Your task to perform on an android device: Clear the cart on walmart.com. Search for "lenovo thinkpad" on walmart.com, select the first entry, and add it to the cart. Image 0: 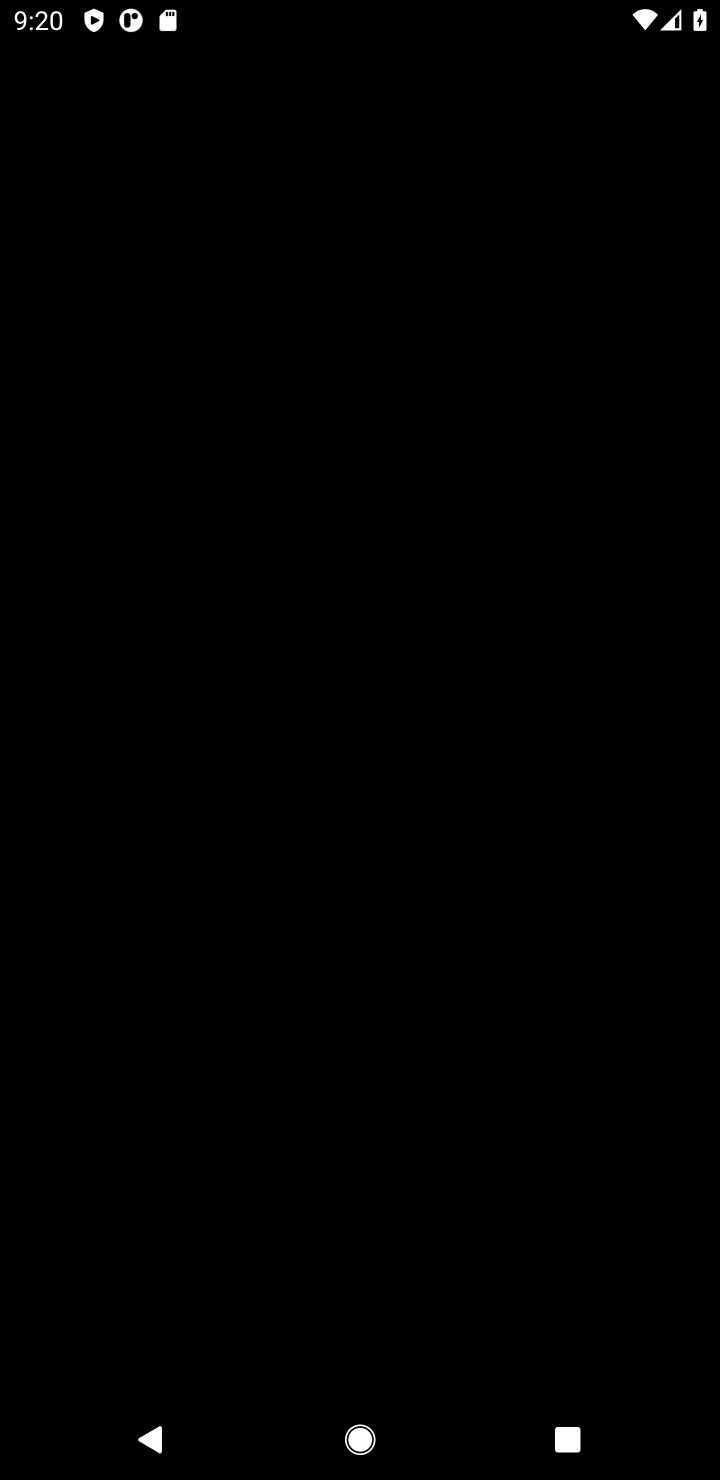
Step 0: press home button
Your task to perform on an android device: Clear the cart on walmart.com. Search for "lenovo thinkpad" on walmart.com, select the first entry, and add it to the cart. Image 1: 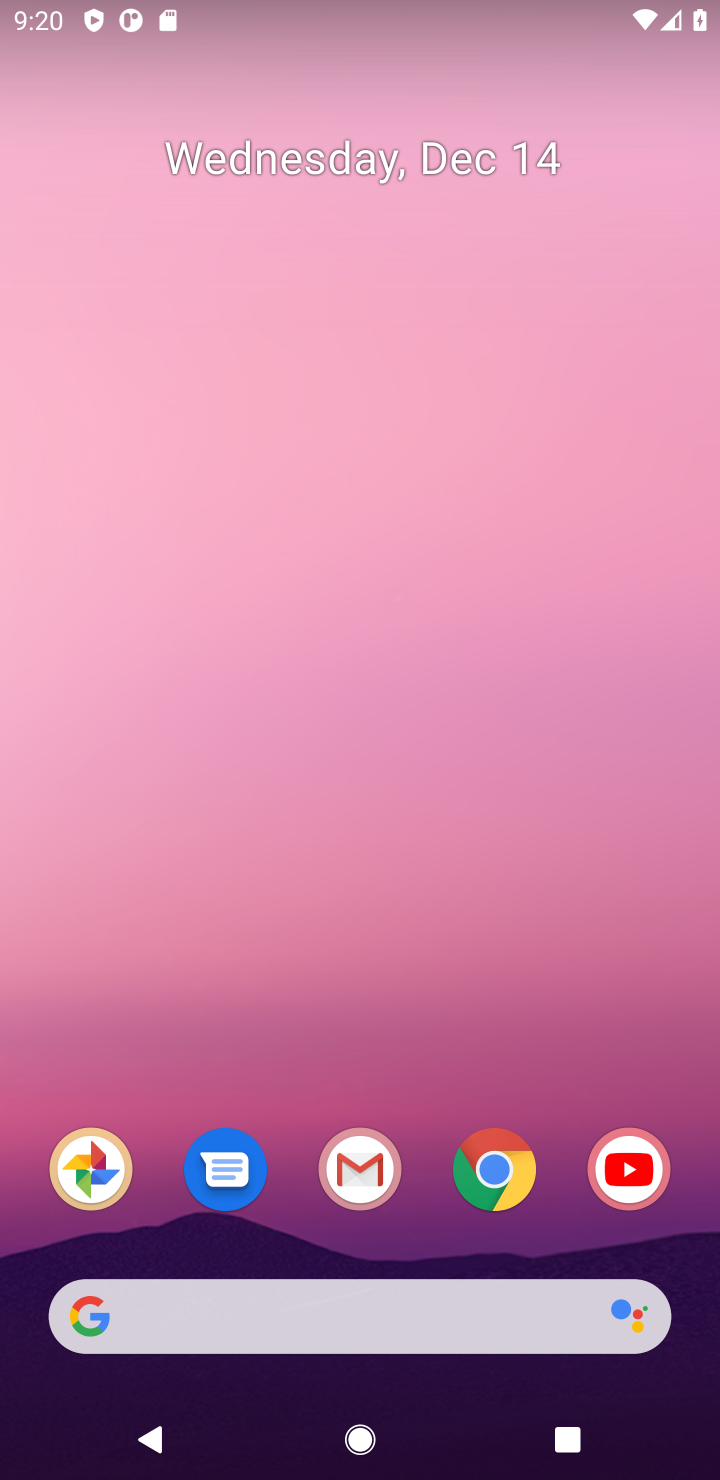
Step 1: click (478, 1167)
Your task to perform on an android device: Clear the cart on walmart.com. Search for "lenovo thinkpad" on walmart.com, select the first entry, and add it to the cart. Image 2: 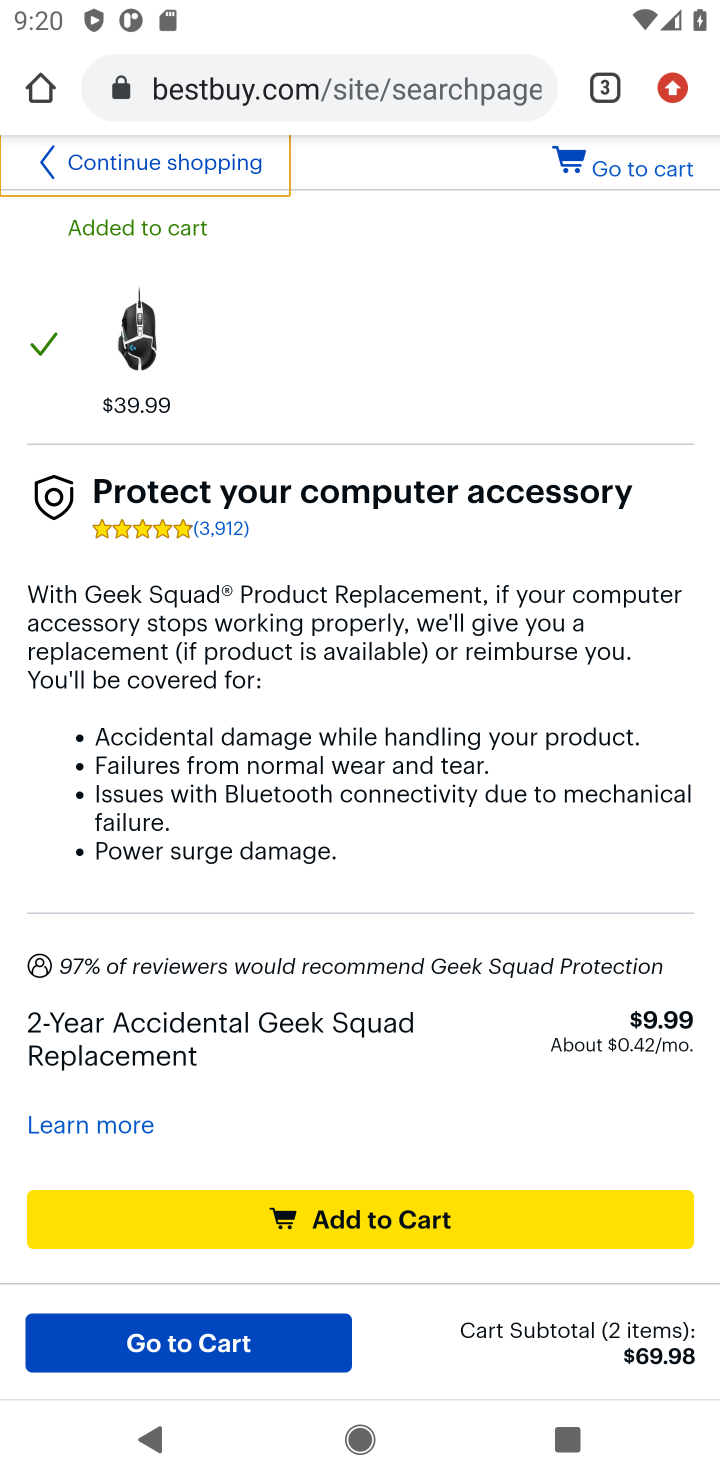
Step 2: click (605, 91)
Your task to perform on an android device: Clear the cart on walmart.com. Search for "lenovo thinkpad" on walmart.com, select the first entry, and add it to the cart. Image 3: 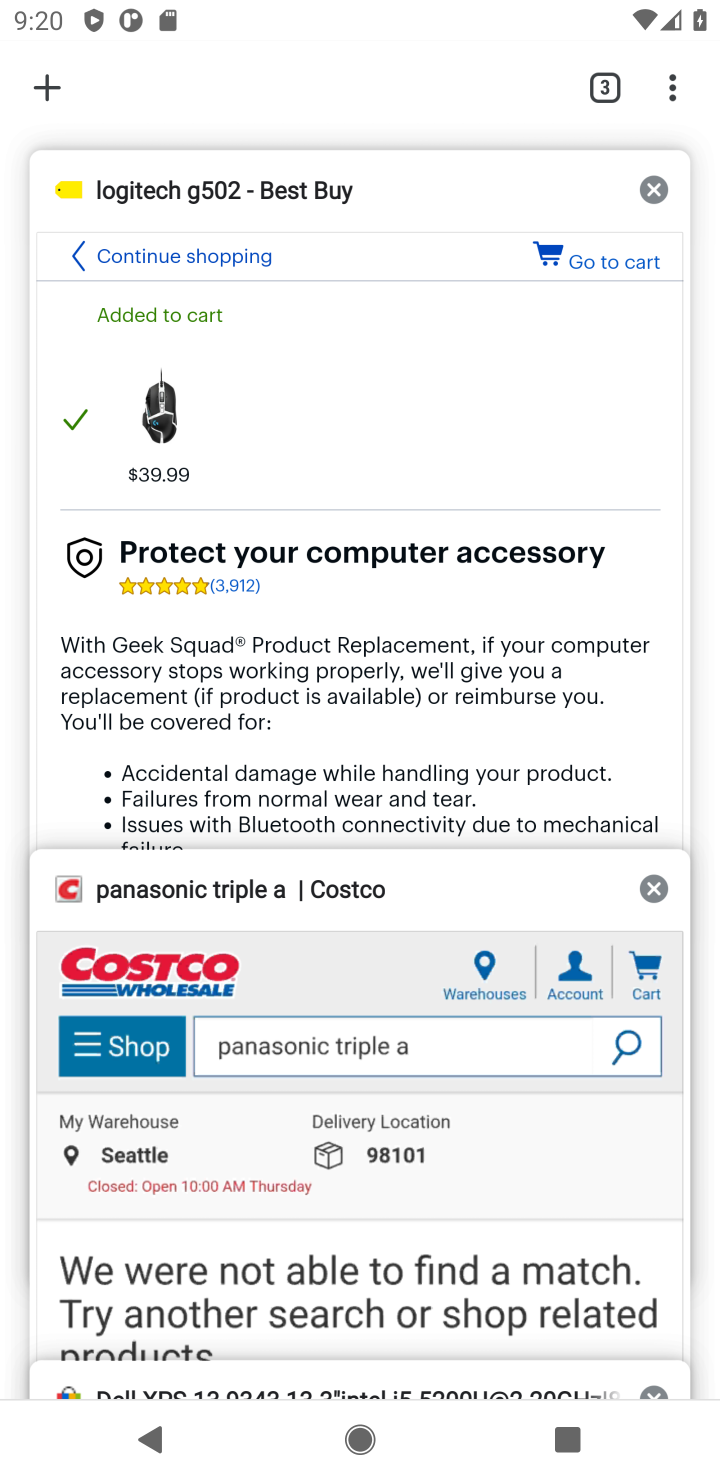
Step 3: click (49, 95)
Your task to perform on an android device: Clear the cart on walmart.com. Search for "lenovo thinkpad" on walmart.com, select the first entry, and add it to the cart. Image 4: 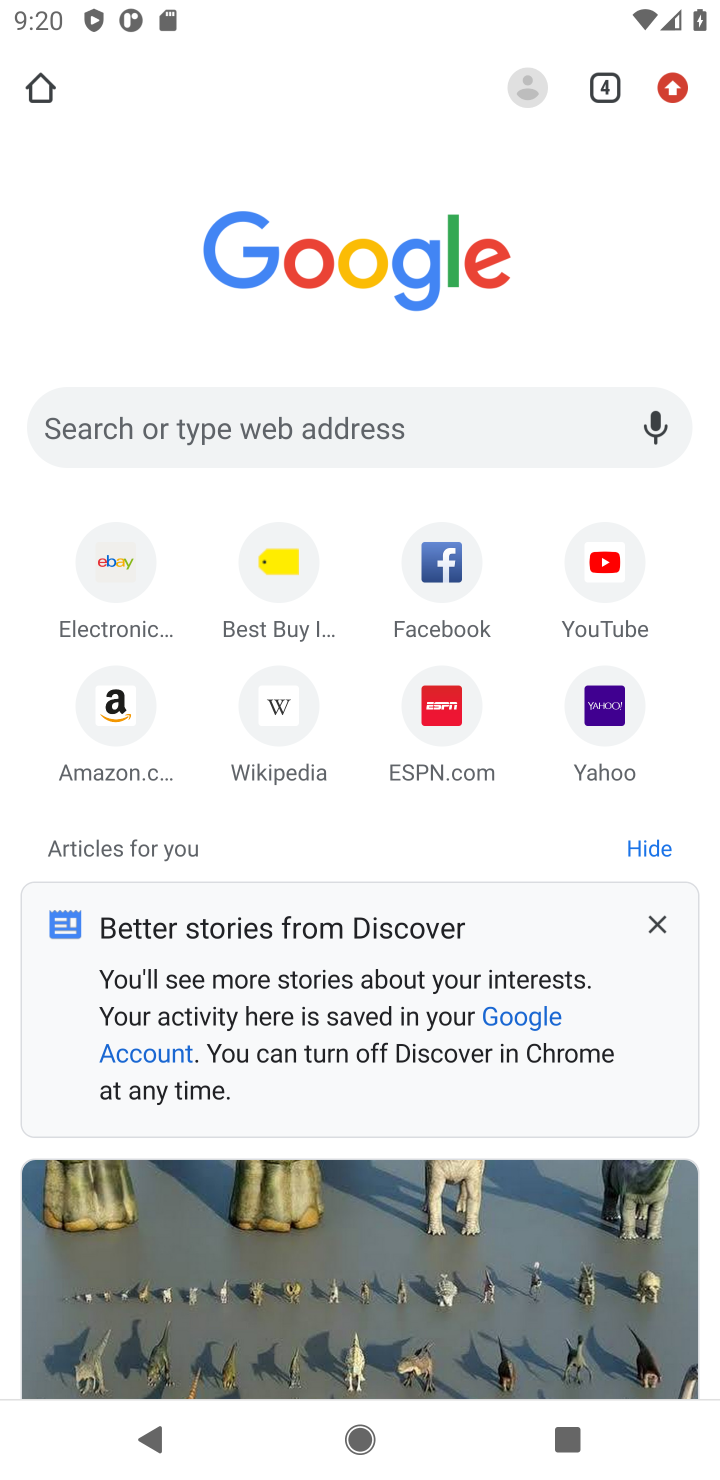
Step 4: click (349, 423)
Your task to perform on an android device: Clear the cart on walmart.com. Search for "lenovo thinkpad" on walmart.com, select the first entry, and add it to the cart. Image 5: 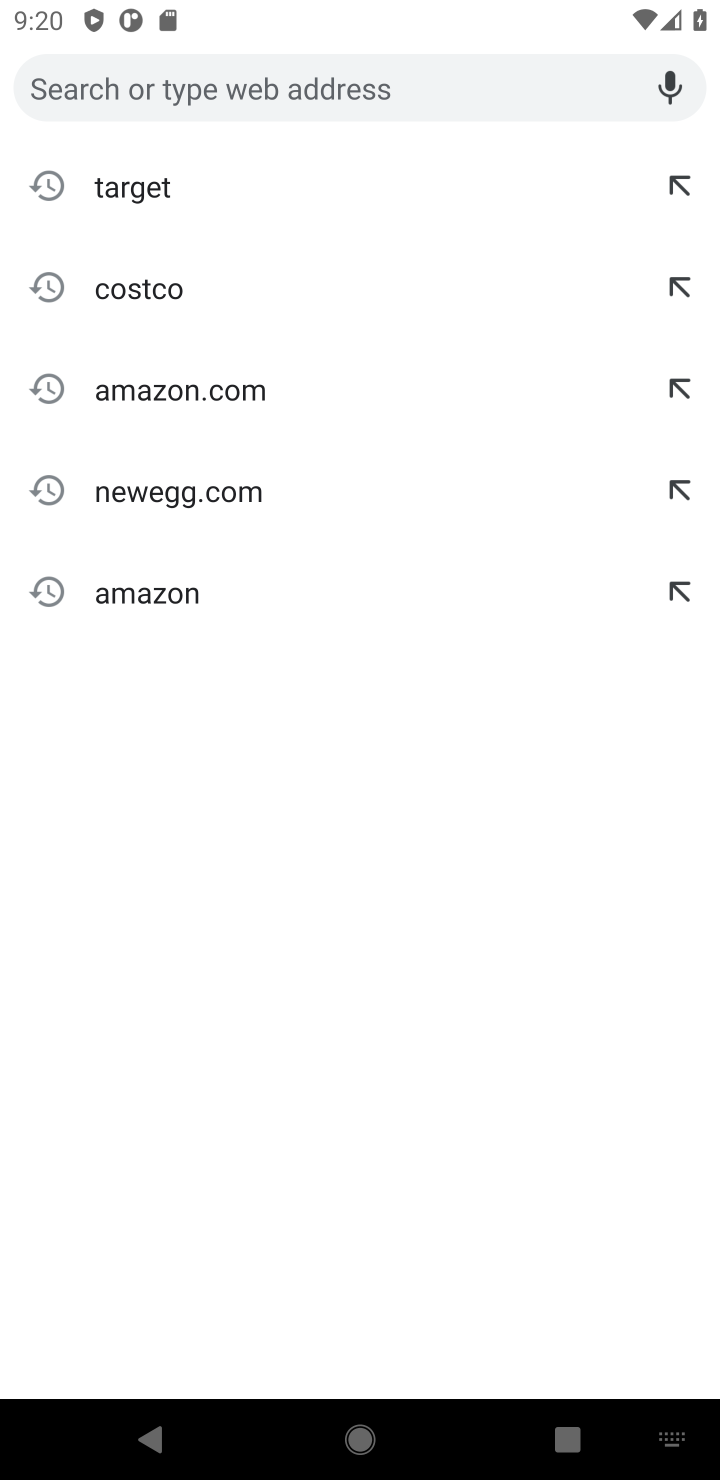
Step 5: type "walmart"
Your task to perform on an android device: Clear the cart on walmart.com. Search for "lenovo thinkpad" on walmart.com, select the first entry, and add it to the cart. Image 6: 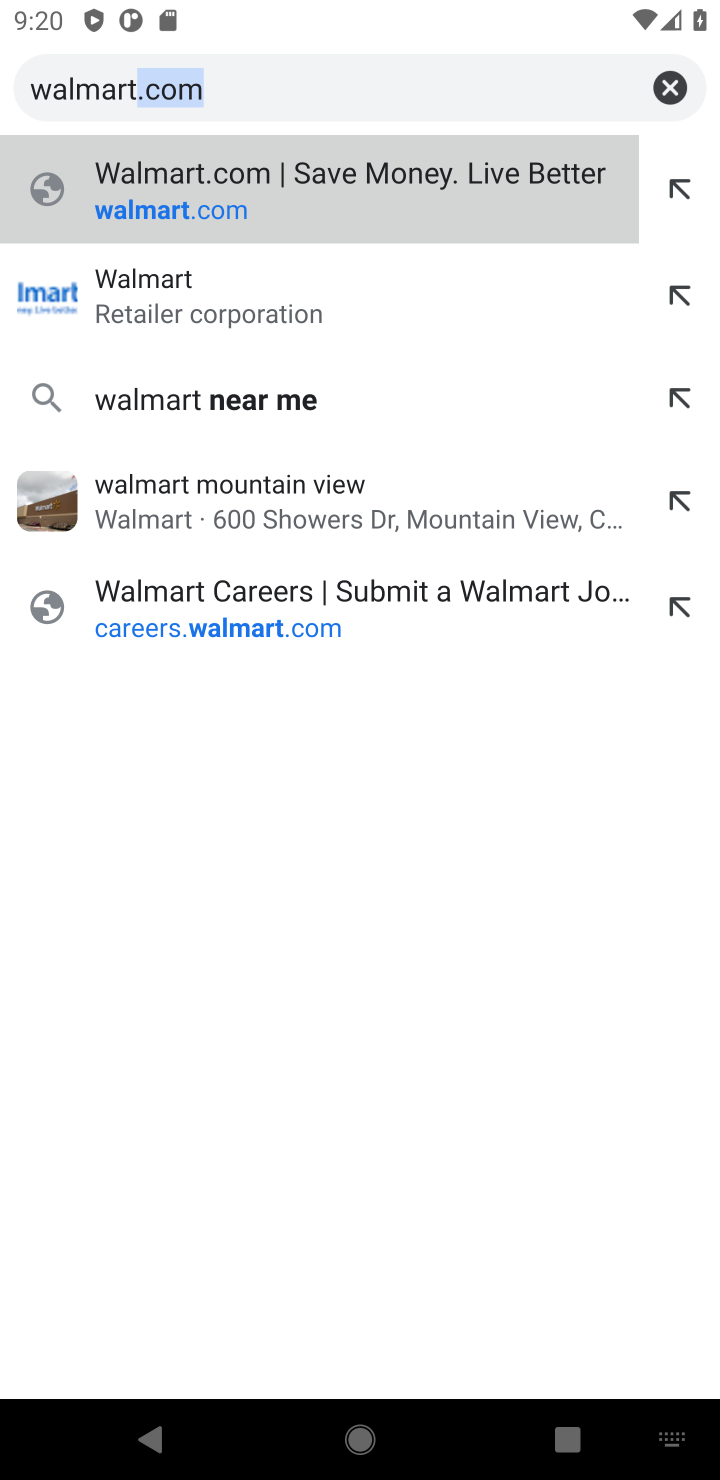
Step 6: click (153, 91)
Your task to perform on an android device: Clear the cart on walmart.com. Search for "lenovo thinkpad" on walmart.com, select the first entry, and add it to the cart. Image 7: 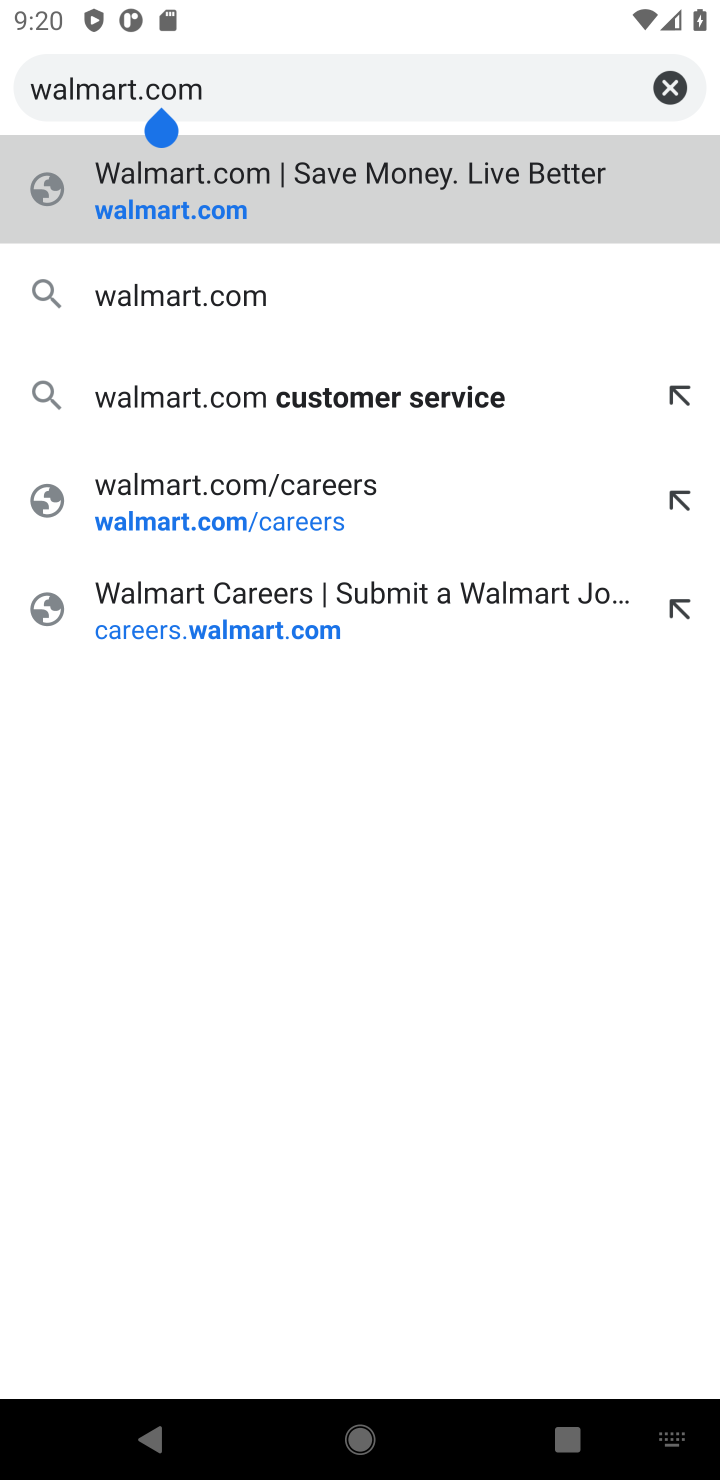
Step 7: click (194, 210)
Your task to perform on an android device: Clear the cart on walmart.com. Search for "lenovo thinkpad" on walmart.com, select the first entry, and add it to the cart. Image 8: 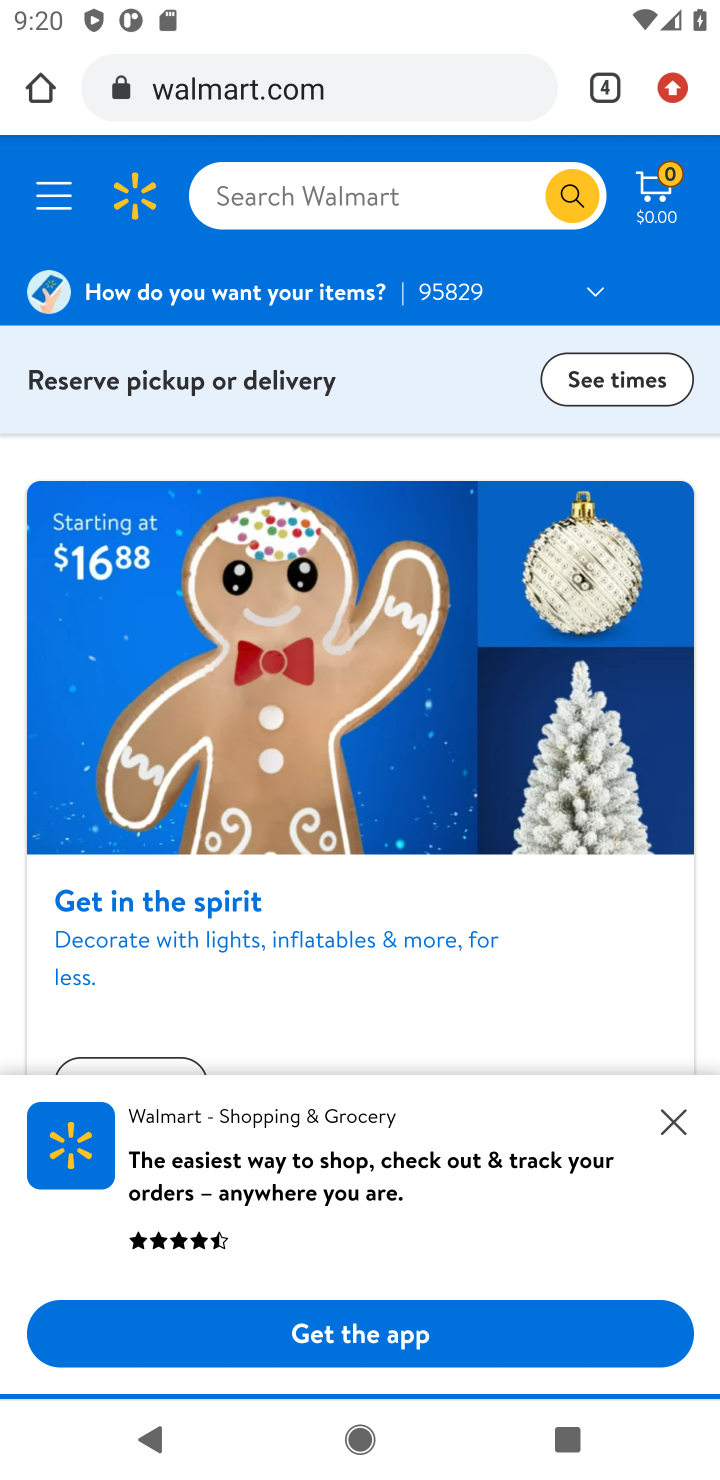
Step 8: click (304, 197)
Your task to perform on an android device: Clear the cart on walmart.com. Search for "lenovo thinkpad" on walmart.com, select the first entry, and add it to the cart. Image 9: 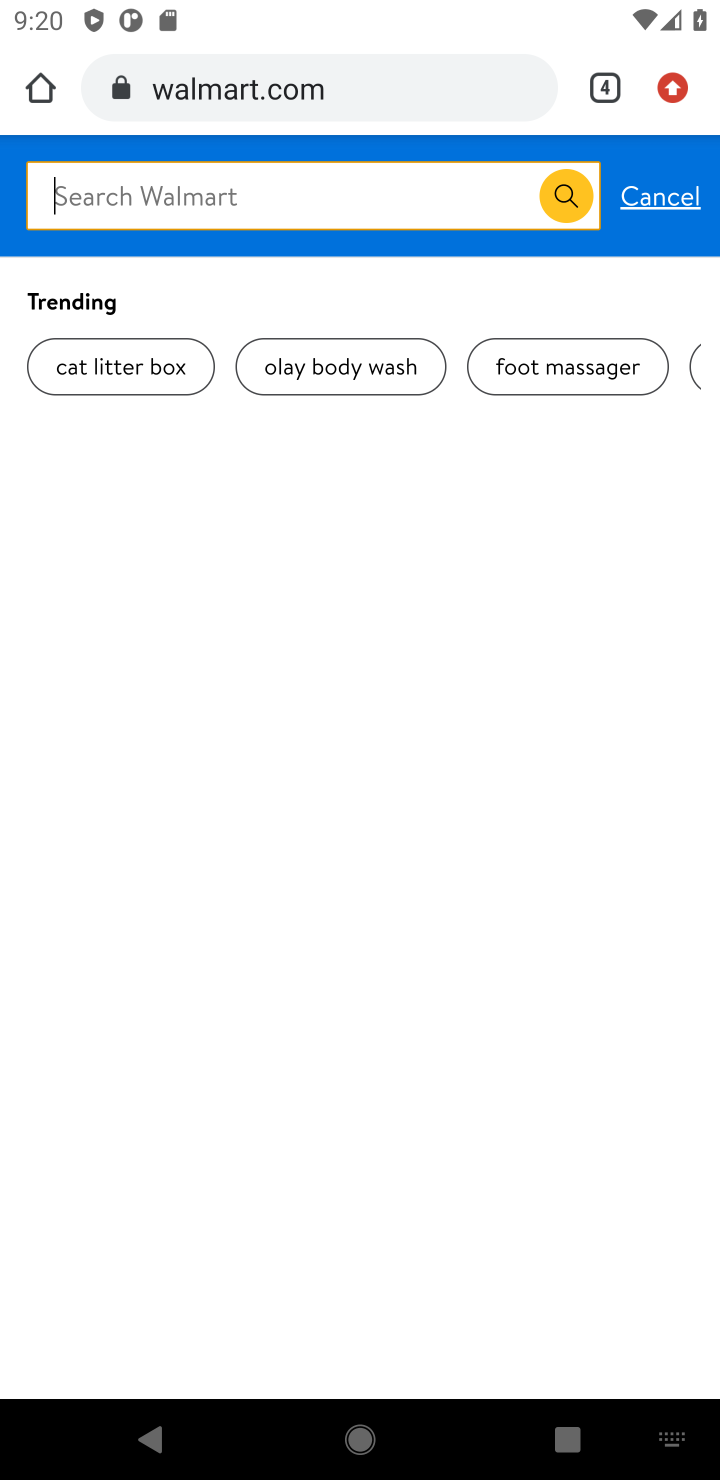
Step 9: type "lenovo thinkpad"
Your task to perform on an android device: Clear the cart on walmart.com. Search for "lenovo thinkpad" on walmart.com, select the first entry, and add it to the cart. Image 10: 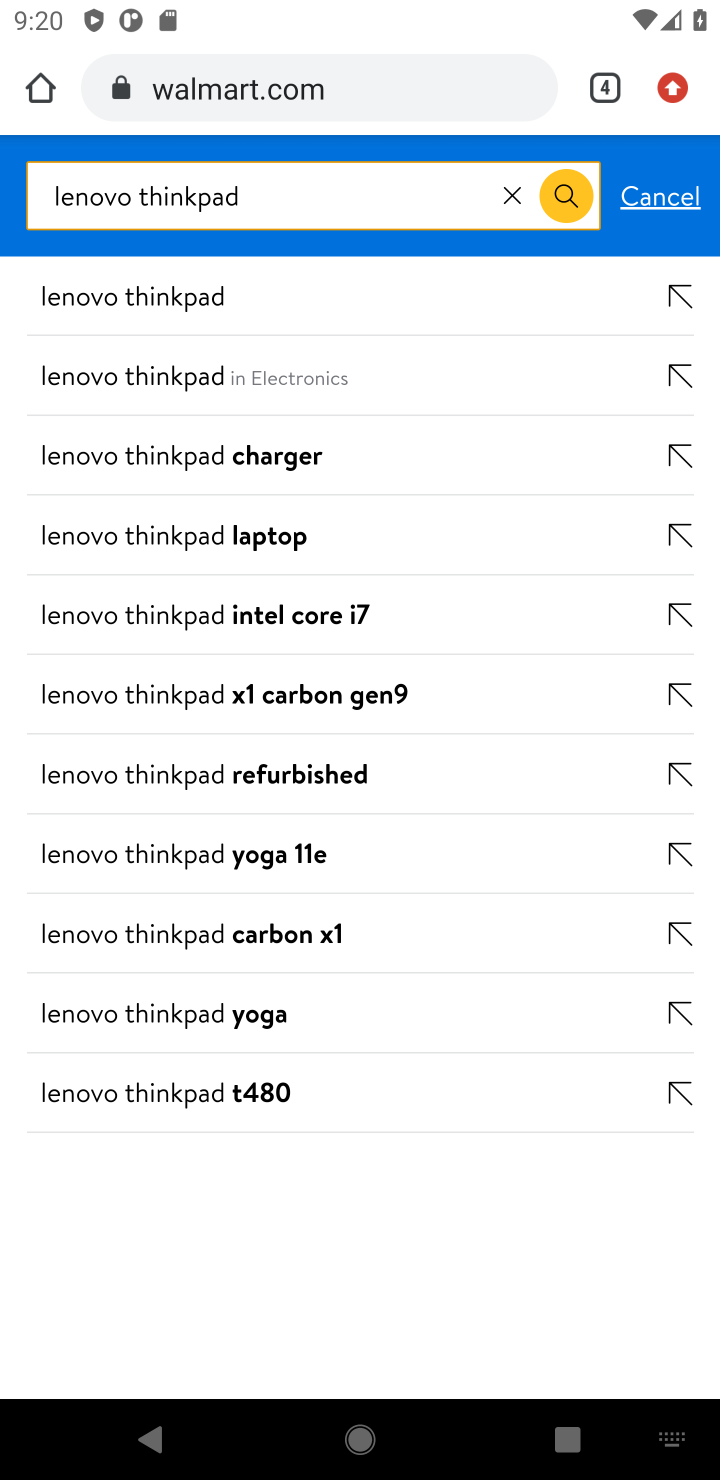
Step 10: click (144, 378)
Your task to perform on an android device: Clear the cart on walmart.com. Search for "lenovo thinkpad" on walmart.com, select the first entry, and add it to the cart. Image 11: 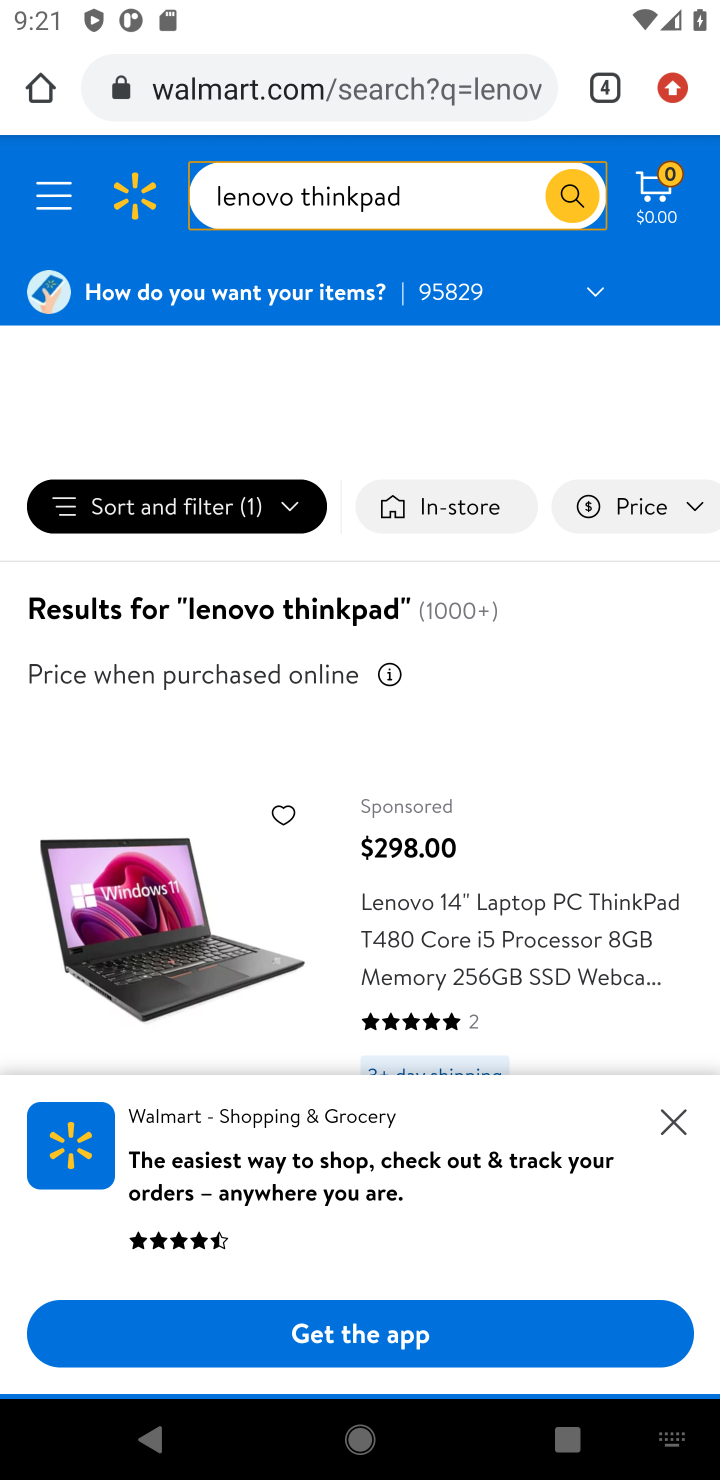
Step 11: drag from (532, 1059) to (628, 684)
Your task to perform on an android device: Clear the cart on walmart.com. Search for "lenovo thinkpad" on walmart.com, select the first entry, and add it to the cart. Image 12: 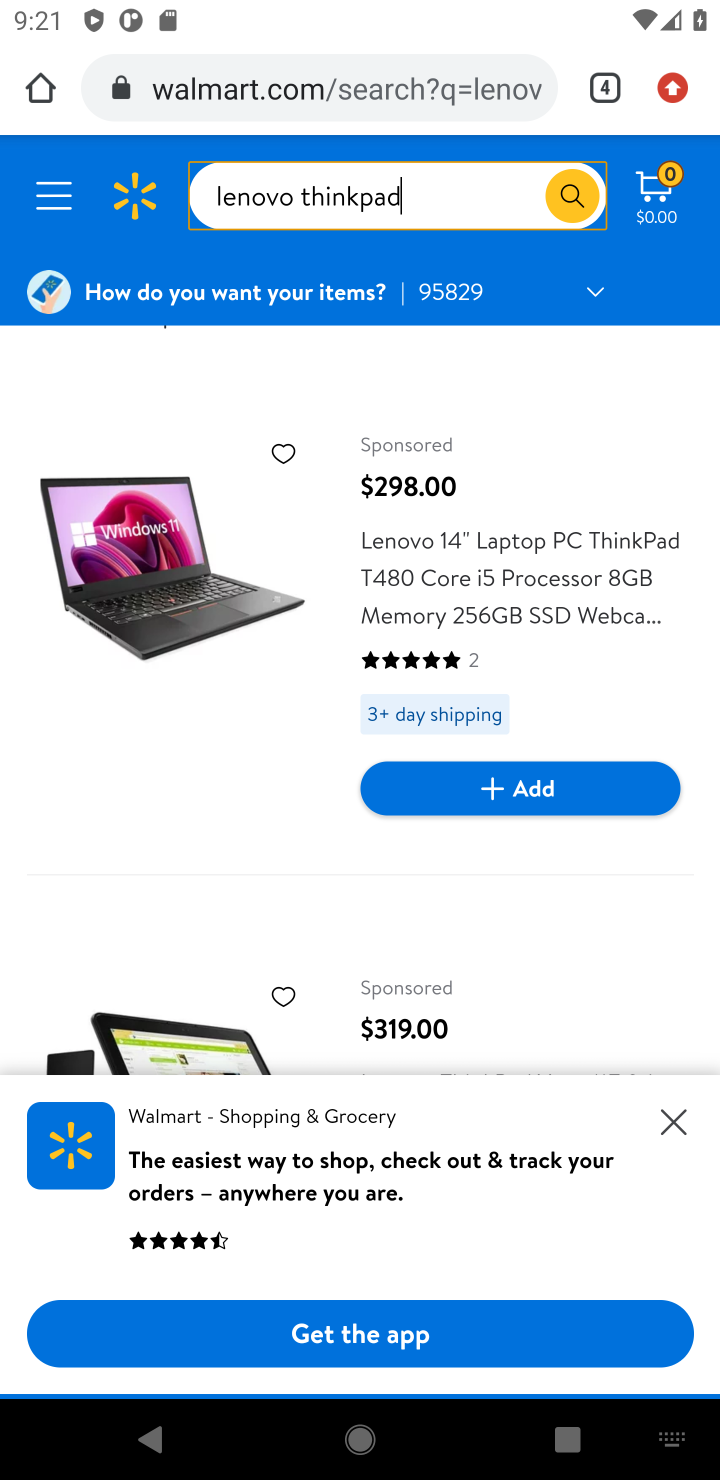
Step 12: drag from (597, 914) to (647, 257)
Your task to perform on an android device: Clear the cart on walmart.com. Search for "lenovo thinkpad" on walmart.com, select the first entry, and add it to the cart. Image 13: 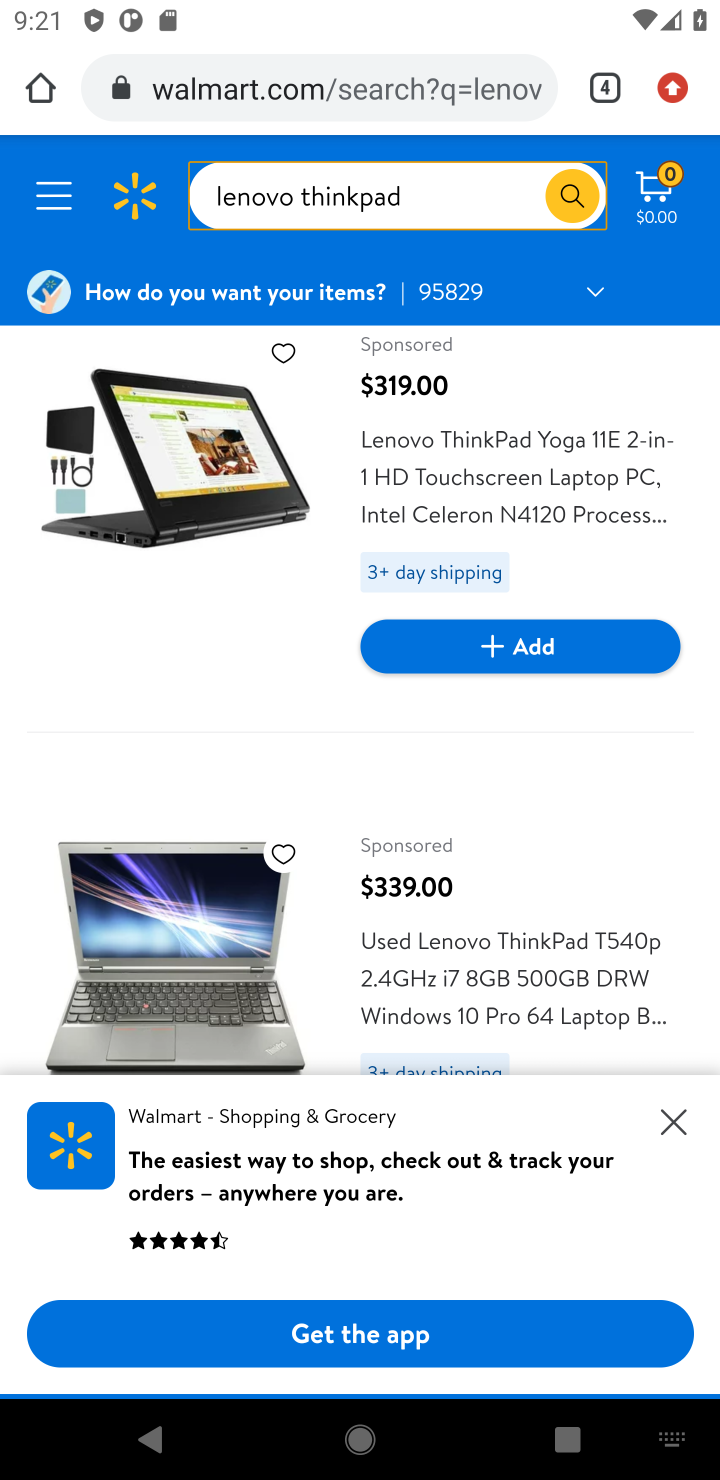
Step 13: click (543, 977)
Your task to perform on an android device: Clear the cart on walmart.com. Search for "lenovo thinkpad" on walmart.com, select the first entry, and add it to the cart. Image 14: 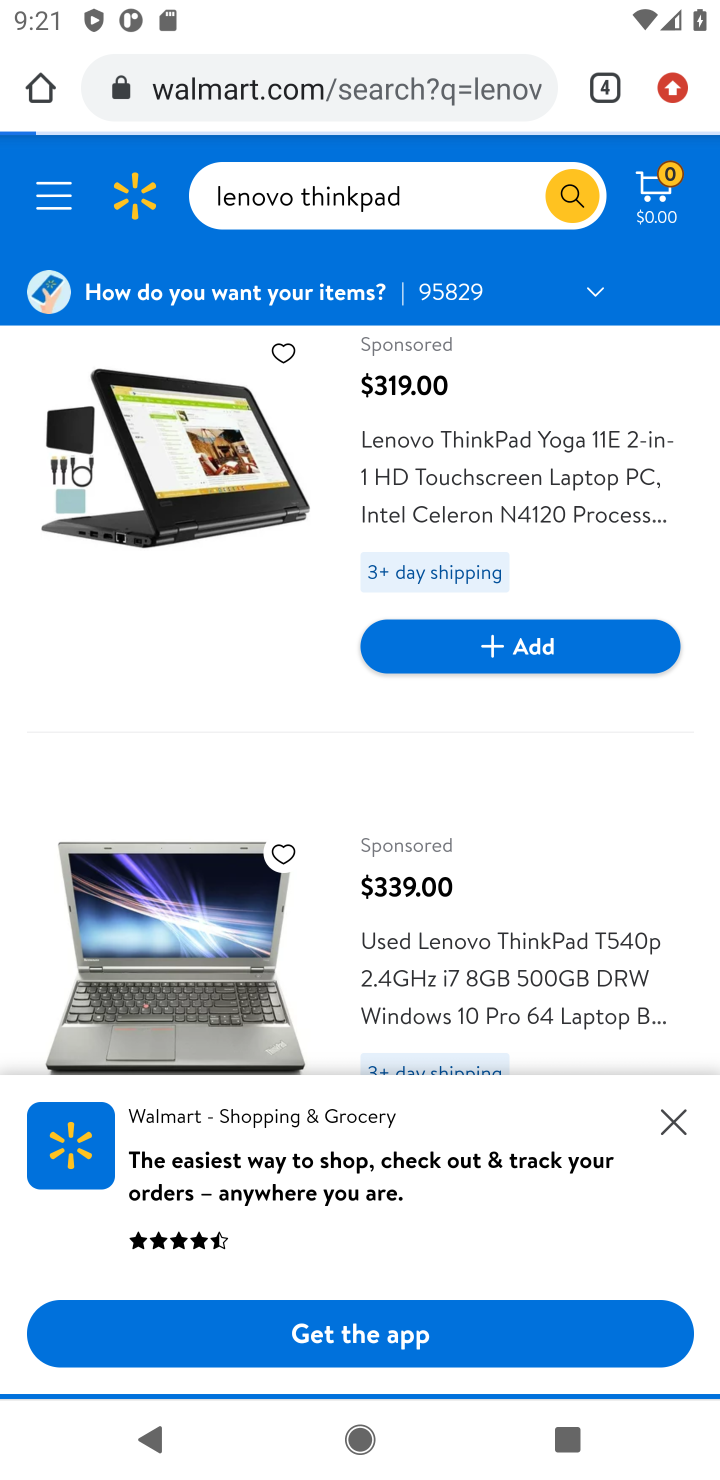
Step 14: click (677, 1128)
Your task to perform on an android device: Clear the cart on walmart.com. Search for "lenovo thinkpad" on walmart.com, select the first entry, and add it to the cart. Image 15: 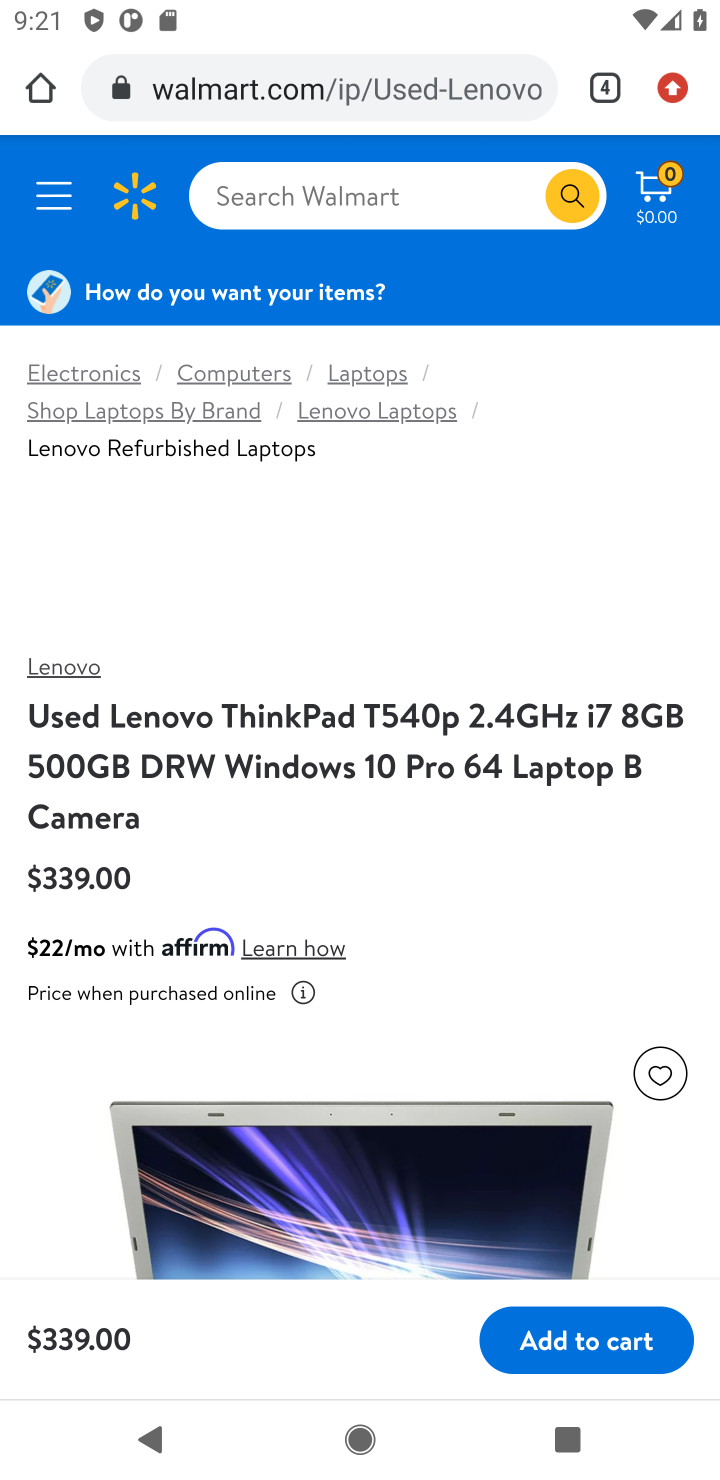
Step 15: click (542, 1340)
Your task to perform on an android device: Clear the cart on walmart.com. Search for "lenovo thinkpad" on walmart.com, select the first entry, and add it to the cart. Image 16: 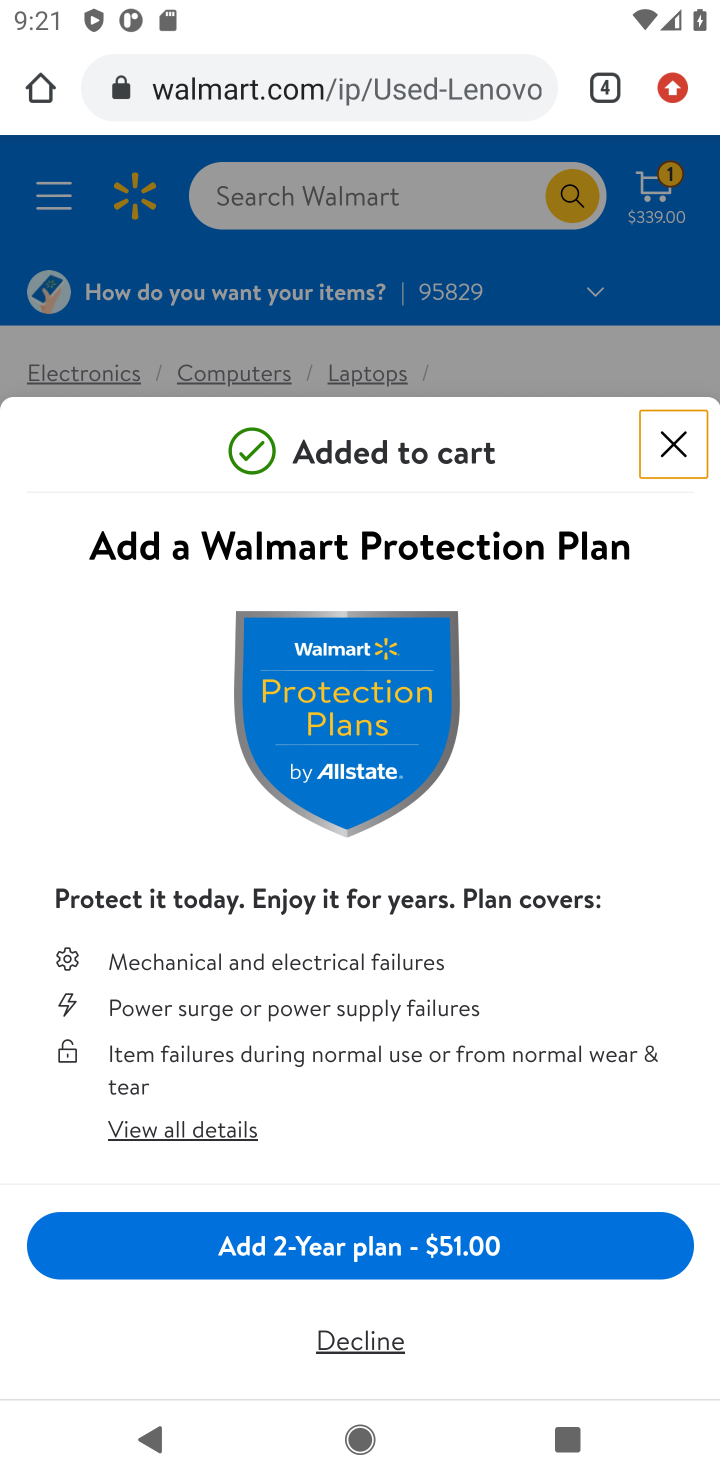
Step 16: task complete